Your task to perform on an android device: remove spam from my inbox in the gmail app Image 0: 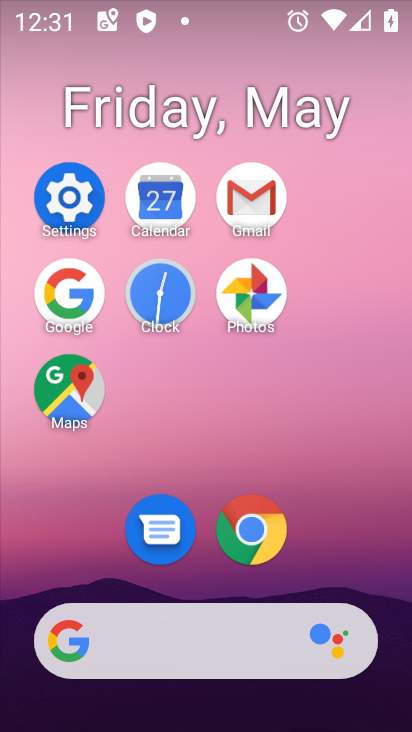
Step 0: click (244, 206)
Your task to perform on an android device: remove spam from my inbox in the gmail app Image 1: 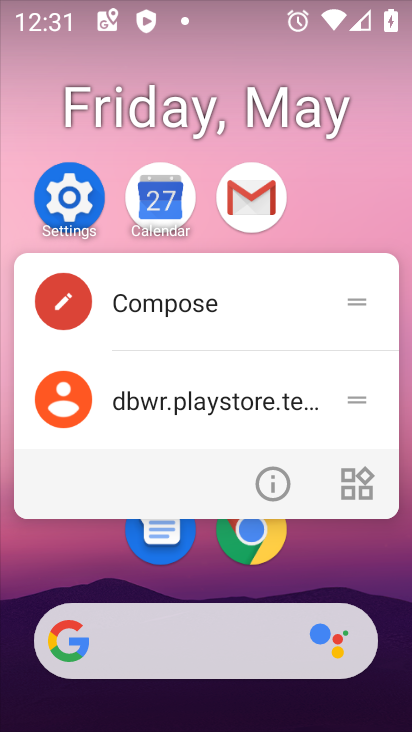
Step 1: click (241, 206)
Your task to perform on an android device: remove spam from my inbox in the gmail app Image 2: 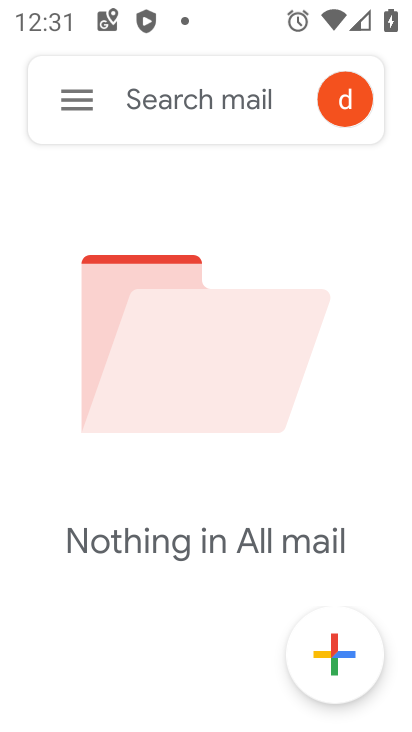
Step 2: click (88, 107)
Your task to perform on an android device: remove spam from my inbox in the gmail app Image 3: 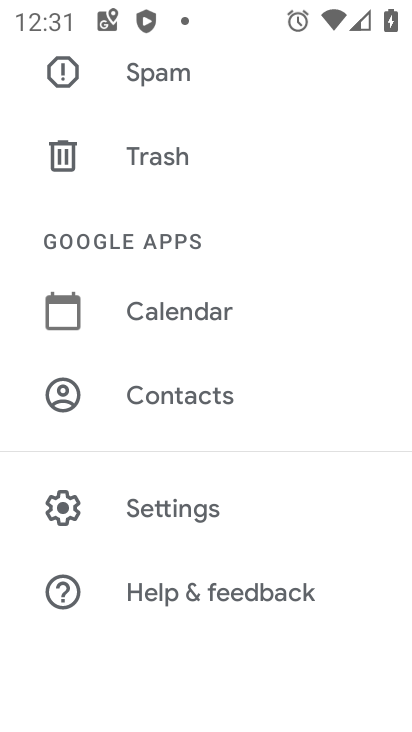
Step 3: click (150, 67)
Your task to perform on an android device: remove spam from my inbox in the gmail app Image 4: 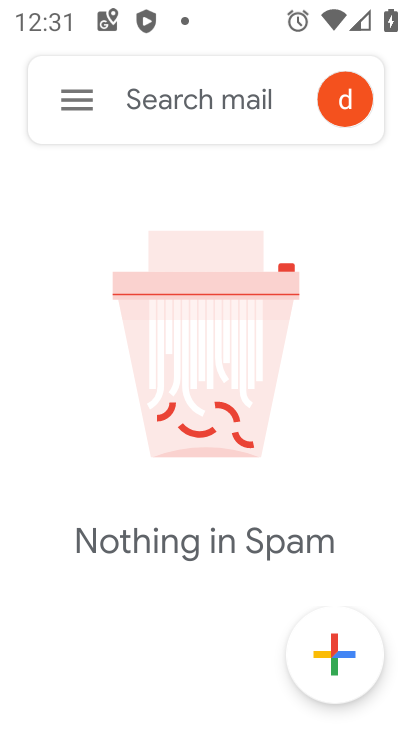
Step 4: task complete